Your task to perform on an android device: Open CNN.com Image 0: 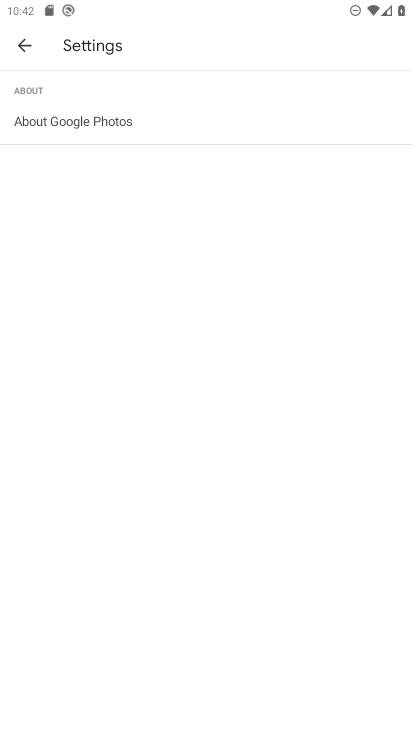
Step 0: press home button
Your task to perform on an android device: Open CNN.com Image 1: 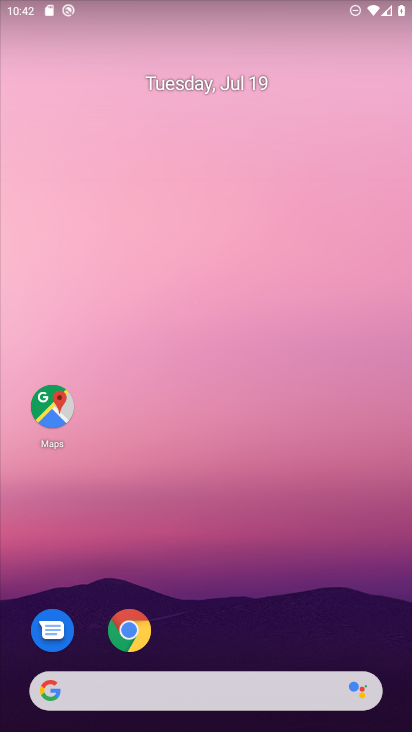
Step 1: click (135, 637)
Your task to perform on an android device: Open CNN.com Image 2: 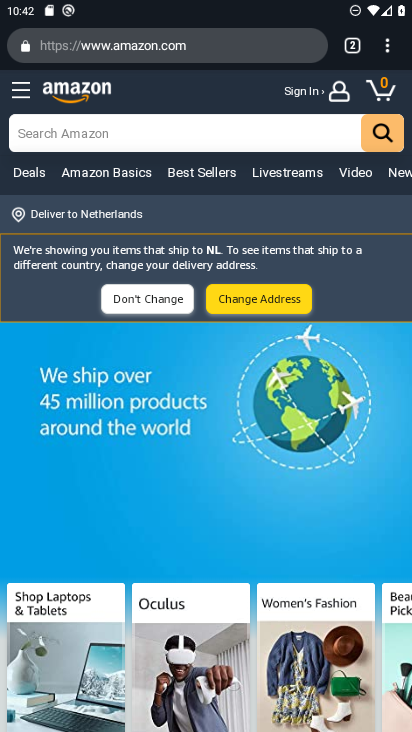
Step 2: click (352, 52)
Your task to perform on an android device: Open CNN.com Image 3: 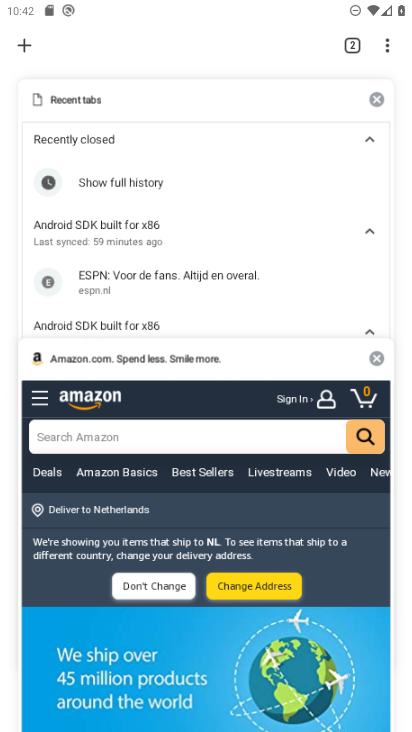
Step 3: click (28, 51)
Your task to perform on an android device: Open CNN.com Image 4: 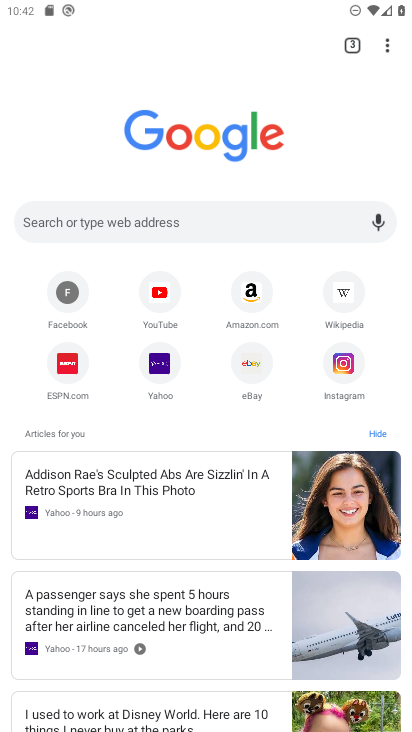
Step 4: click (124, 233)
Your task to perform on an android device: Open CNN.com Image 5: 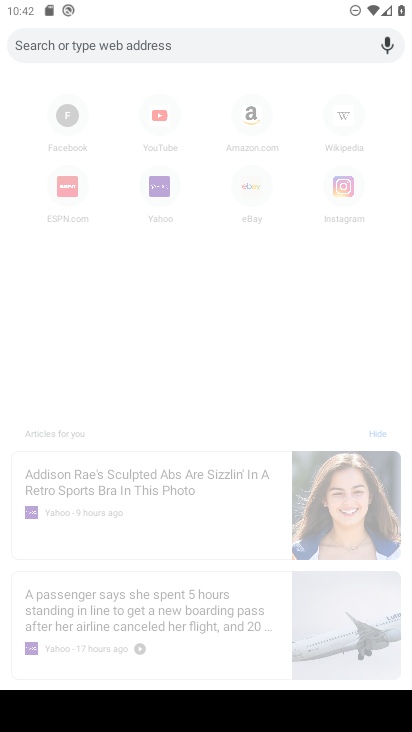
Step 5: type "CNN.com"
Your task to perform on an android device: Open CNN.com Image 6: 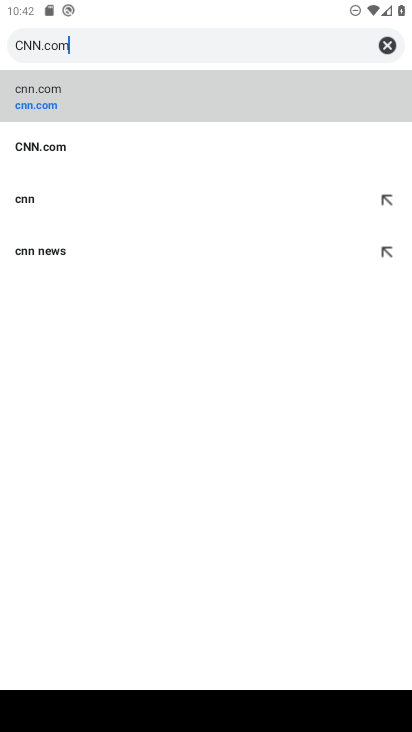
Step 6: type ""
Your task to perform on an android device: Open CNN.com Image 7: 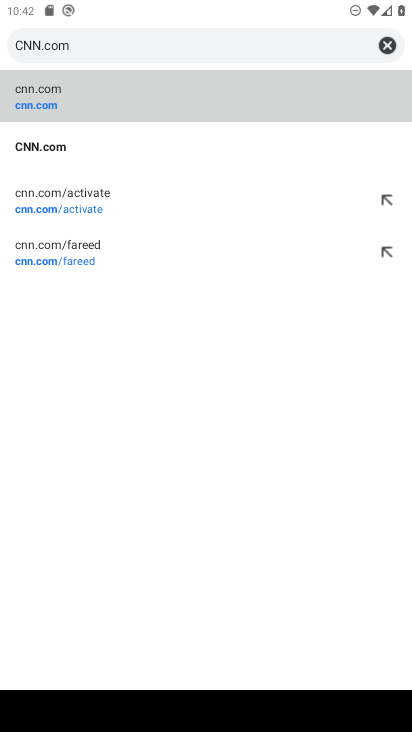
Step 7: click (95, 110)
Your task to perform on an android device: Open CNN.com Image 8: 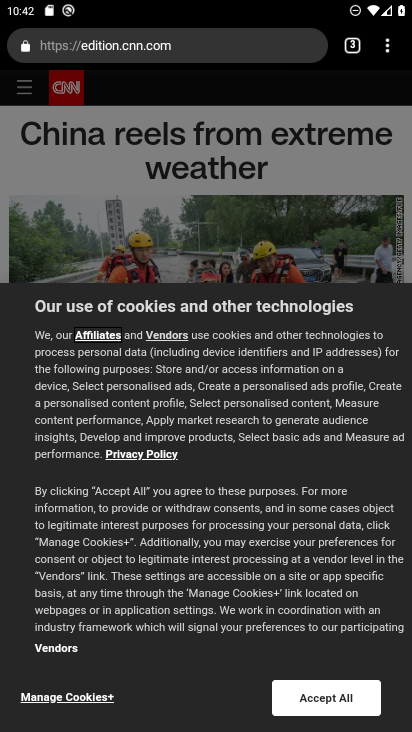
Step 8: task complete